Your task to perform on an android device: Toggle the flashlight Image 0: 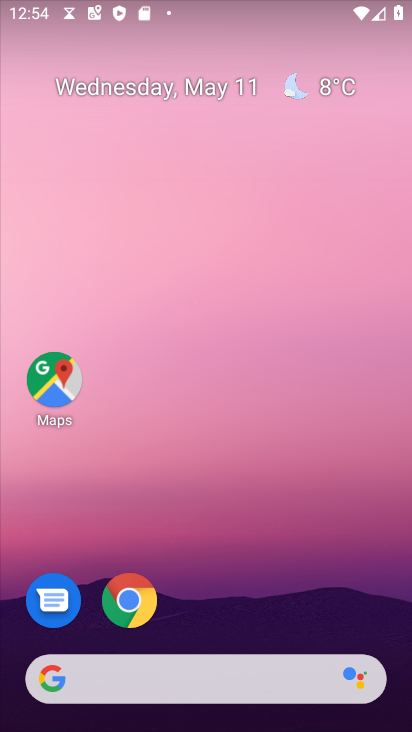
Step 0: drag from (227, 2) to (222, 470)
Your task to perform on an android device: Toggle the flashlight Image 1: 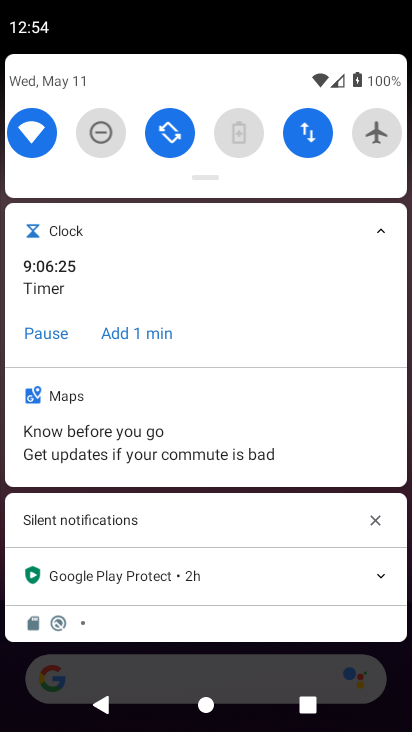
Step 1: task complete